Your task to perform on an android device: turn on translation in the chrome app Image 0: 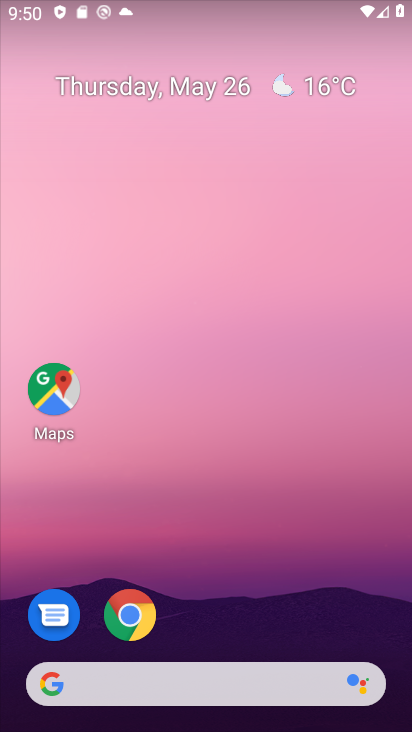
Step 0: drag from (280, 698) to (234, 246)
Your task to perform on an android device: turn on translation in the chrome app Image 1: 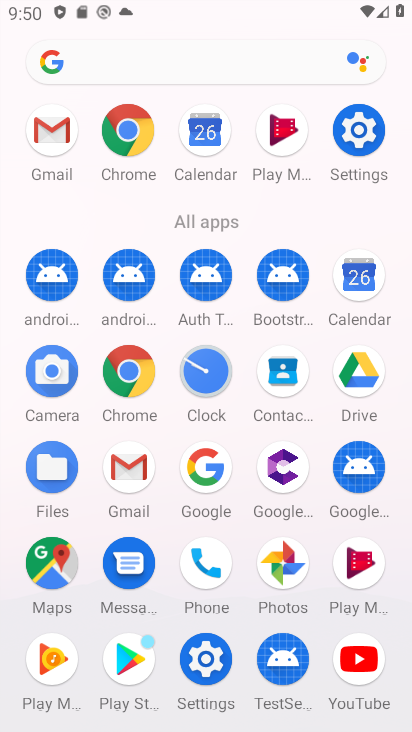
Step 1: click (133, 142)
Your task to perform on an android device: turn on translation in the chrome app Image 2: 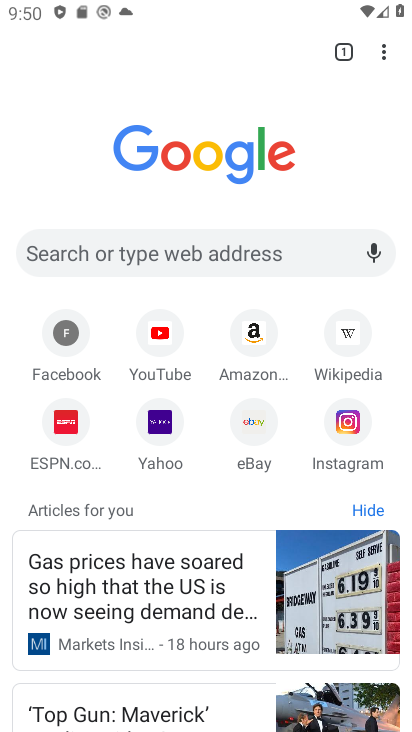
Step 2: click (386, 66)
Your task to perform on an android device: turn on translation in the chrome app Image 3: 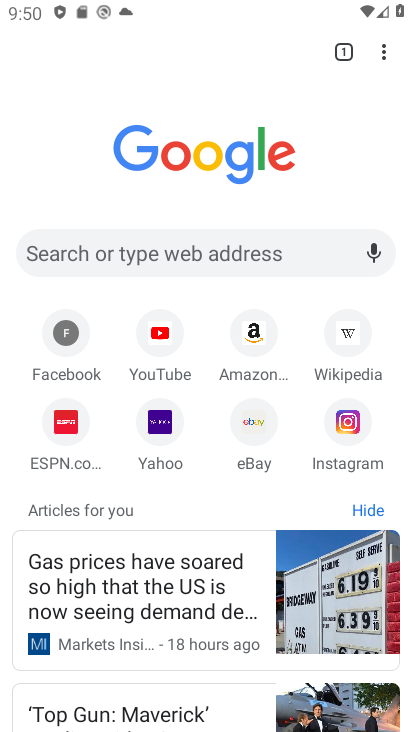
Step 3: click (368, 62)
Your task to perform on an android device: turn on translation in the chrome app Image 4: 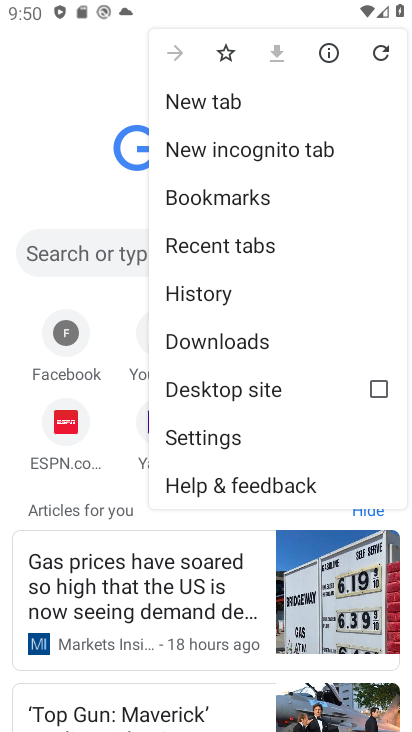
Step 4: click (215, 429)
Your task to perform on an android device: turn on translation in the chrome app Image 5: 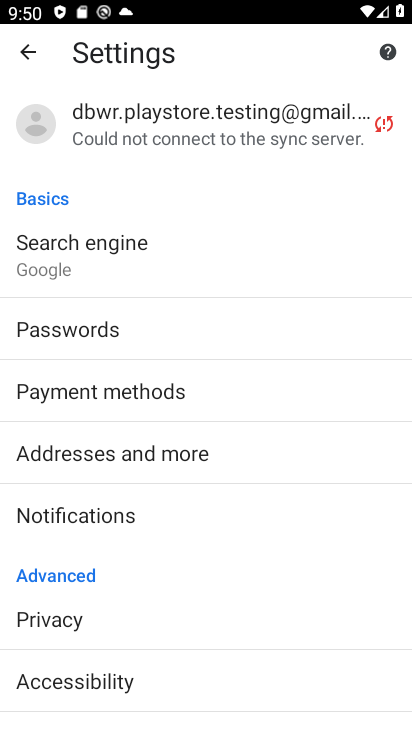
Step 5: drag from (97, 553) to (134, 389)
Your task to perform on an android device: turn on translation in the chrome app Image 6: 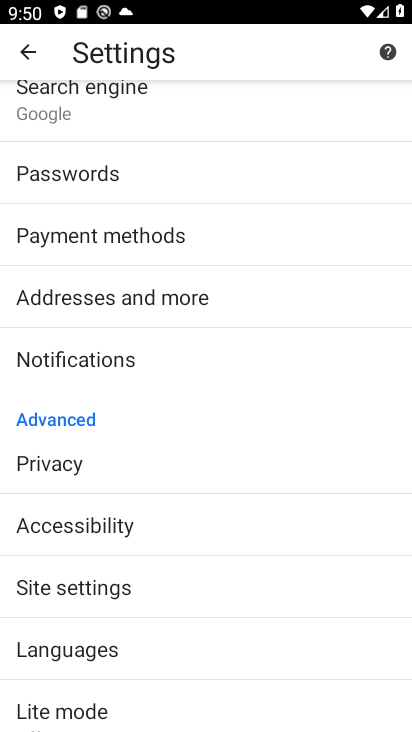
Step 6: click (88, 650)
Your task to perform on an android device: turn on translation in the chrome app Image 7: 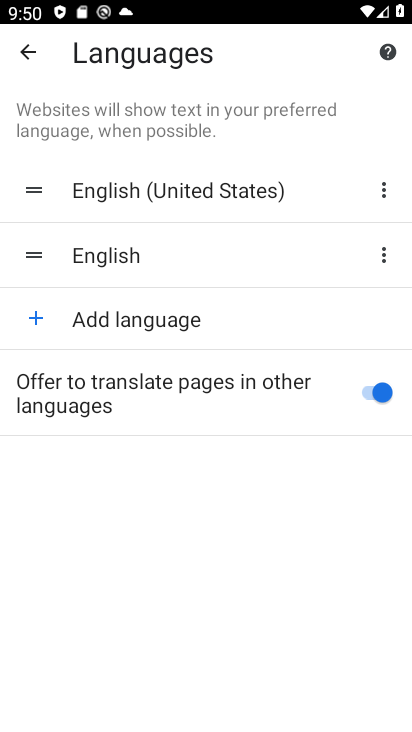
Step 7: click (384, 386)
Your task to perform on an android device: turn on translation in the chrome app Image 8: 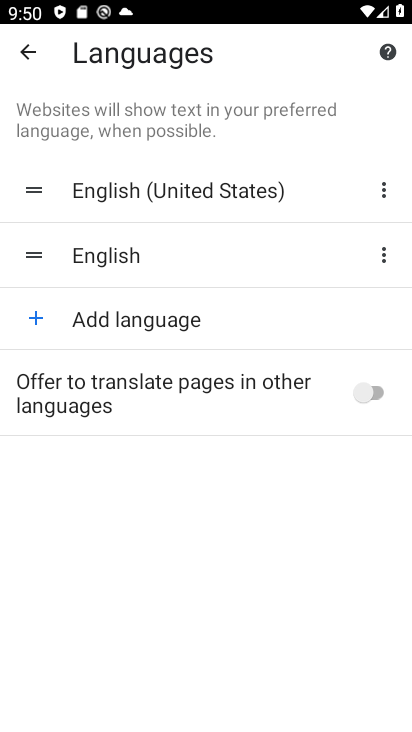
Step 8: click (384, 386)
Your task to perform on an android device: turn on translation in the chrome app Image 9: 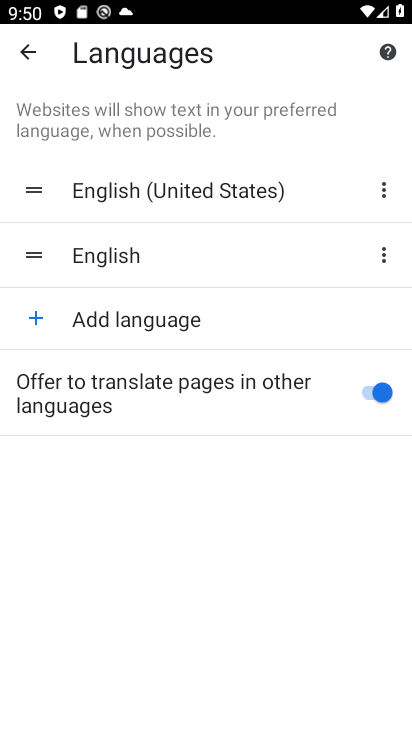
Step 9: task complete